Your task to perform on an android device: Open Youtube and go to "Your channel" Image 0: 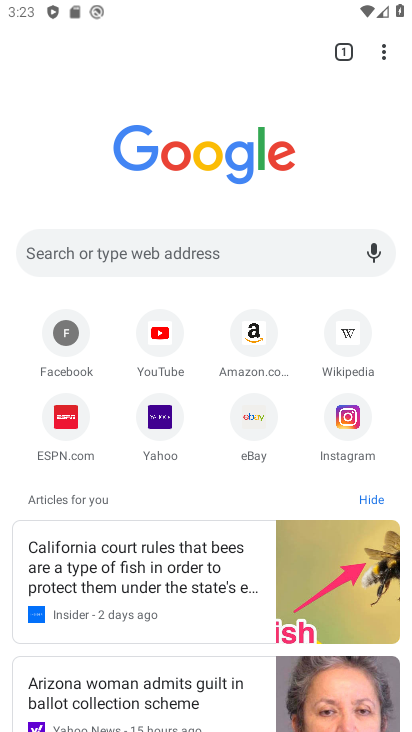
Step 0: press home button
Your task to perform on an android device: Open Youtube and go to "Your channel" Image 1: 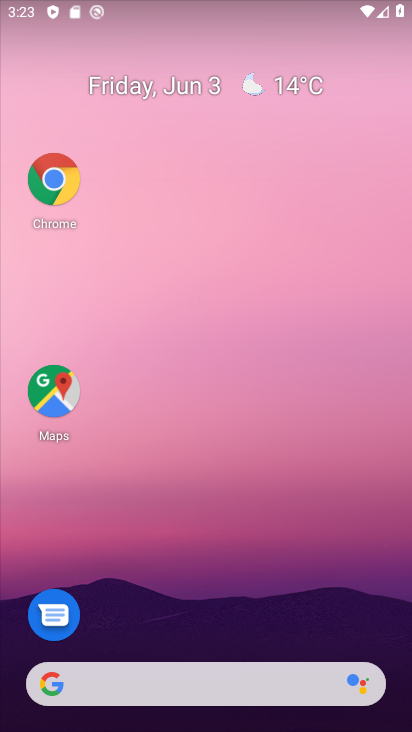
Step 1: drag from (129, 729) to (207, 86)
Your task to perform on an android device: Open Youtube and go to "Your channel" Image 2: 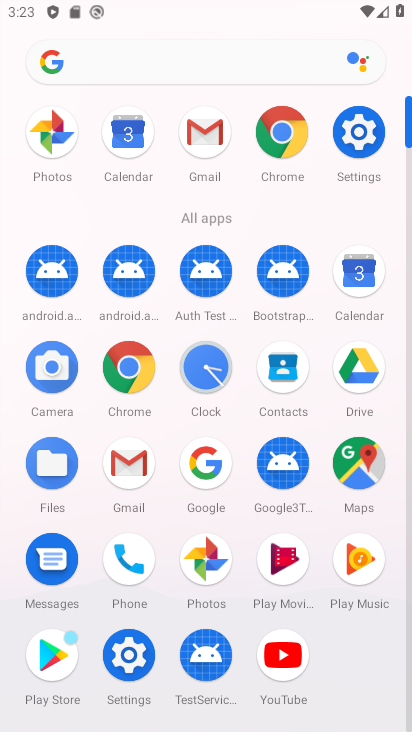
Step 2: click (292, 667)
Your task to perform on an android device: Open Youtube and go to "Your channel" Image 3: 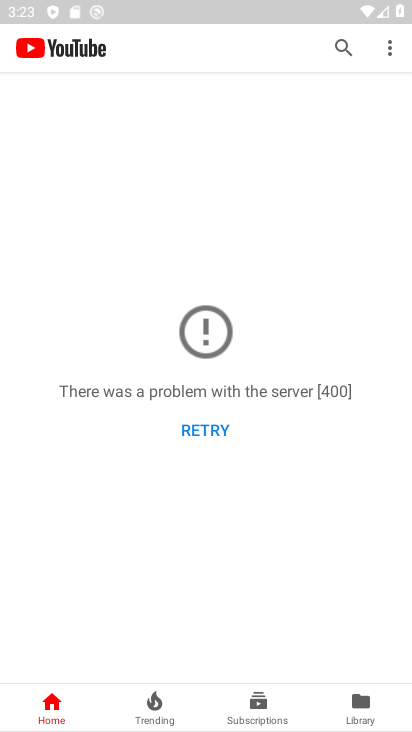
Step 3: click (386, 64)
Your task to perform on an android device: Open Youtube and go to "Your channel" Image 4: 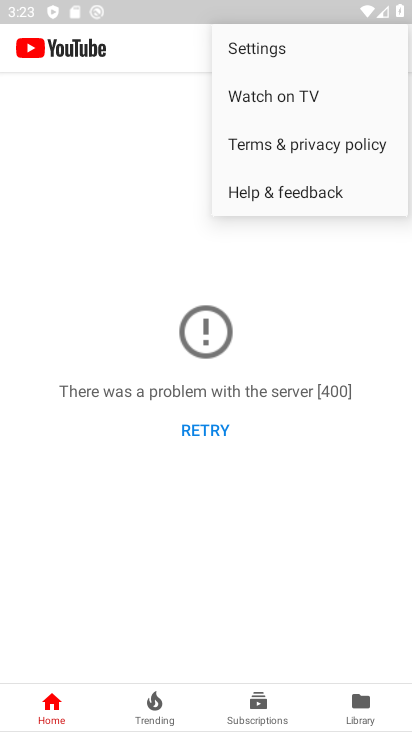
Step 4: click (344, 417)
Your task to perform on an android device: Open Youtube and go to "Your channel" Image 5: 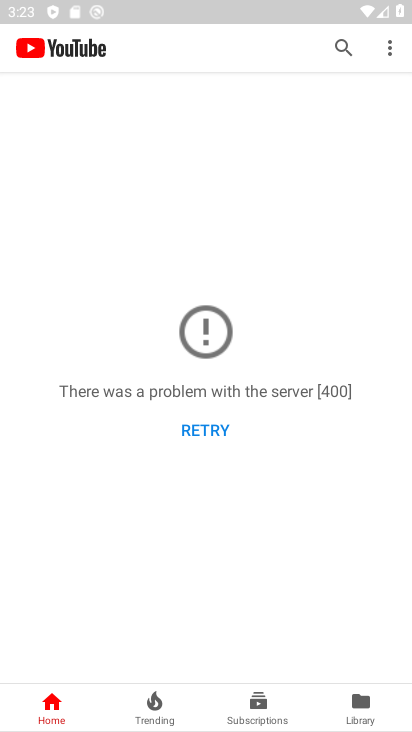
Step 5: click (359, 709)
Your task to perform on an android device: Open Youtube and go to "Your channel" Image 6: 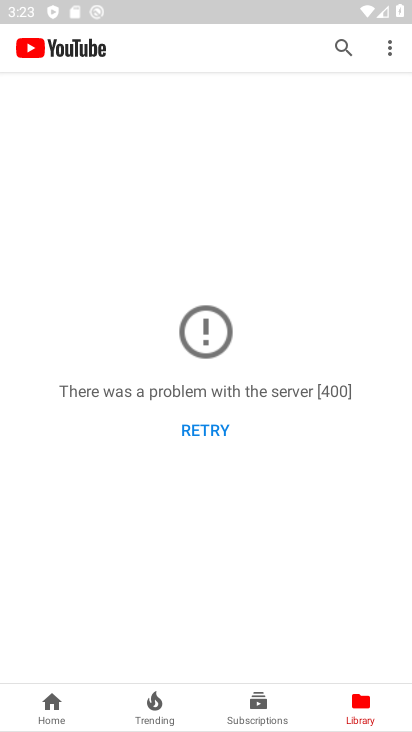
Step 6: click (280, 722)
Your task to perform on an android device: Open Youtube and go to "Your channel" Image 7: 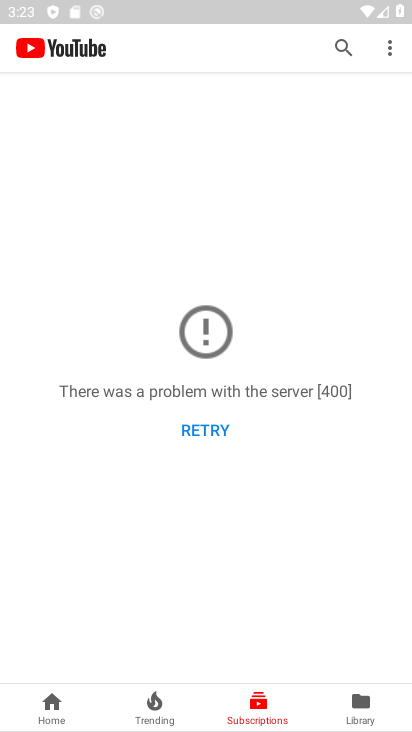
Step 7: click (175, 709)
Your task to perform on an android device: Open Youtube and go to "Your channel" Image 8: 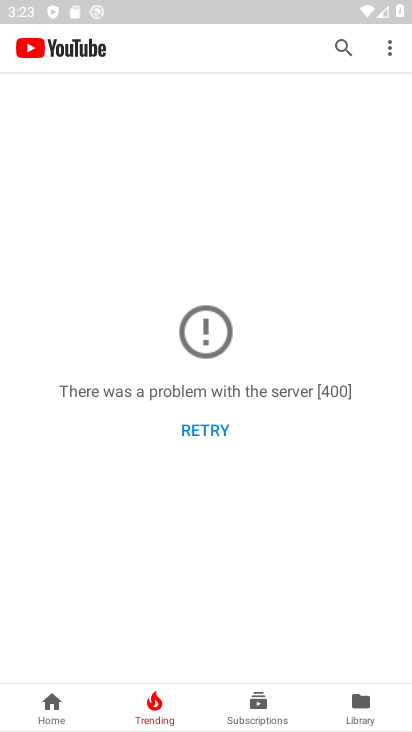
Step 8: click (37, 721)
Your task to perform on an android device: Open Youtube and go to "Your channel" Image 9: 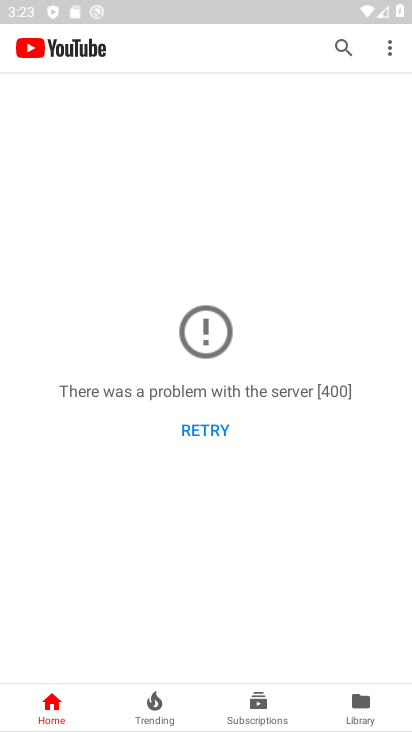
Step 9: task complete